Your task to perform on an android device: turn on airplane mode Image 0: 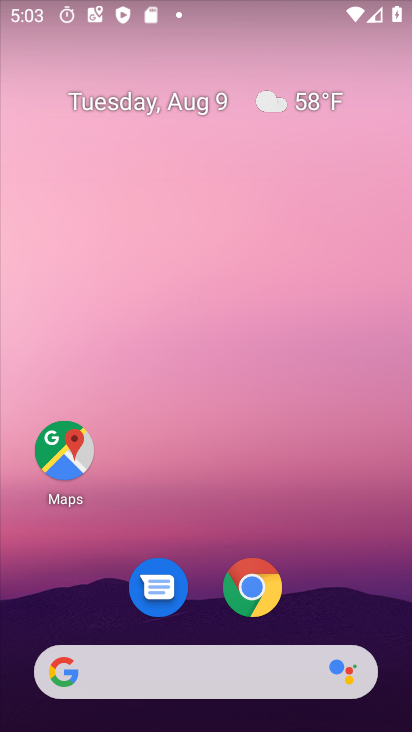
Step 0: drag from (212, 649) to (225, 166)
Your task to perform on an android device: turn on airplane mode Image 1: 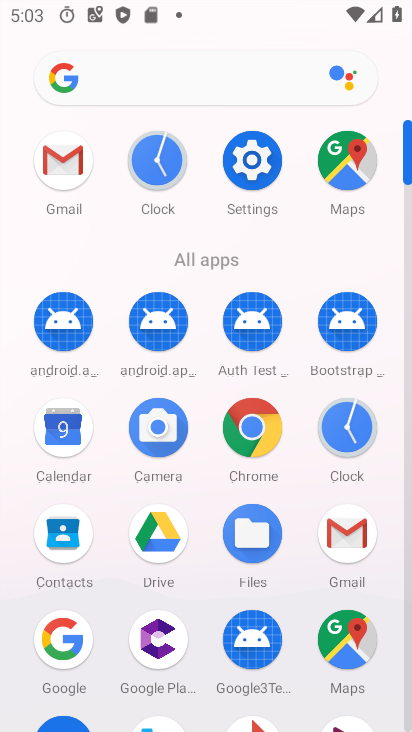
Step 1: click (253, 158)
Your task to perform on an android device: turn on airplane mode Image 2: 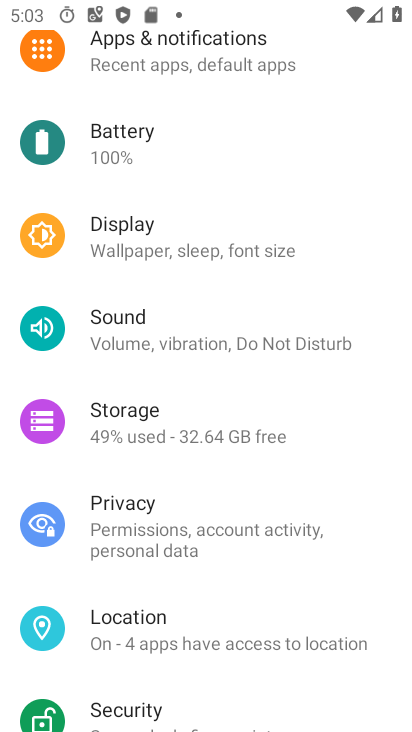
Step 2: drag from (292, 154) to (313, 720)
Your task to perform on an android device: turn on airplane mode Image 3: 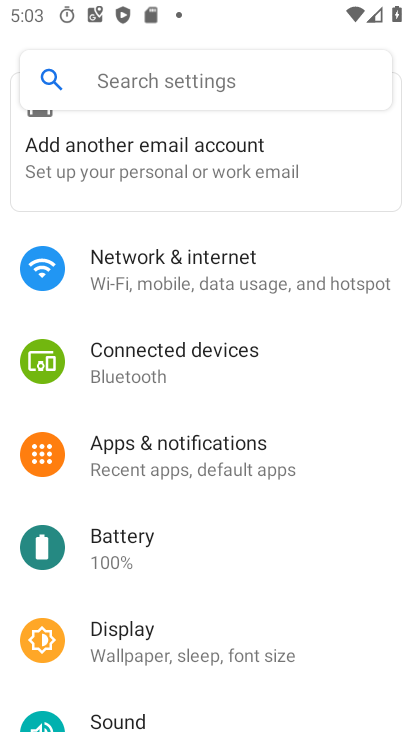
Step 3: click (240, 249)
Your task to perform on an android device: turn on airplane mode Image 4: 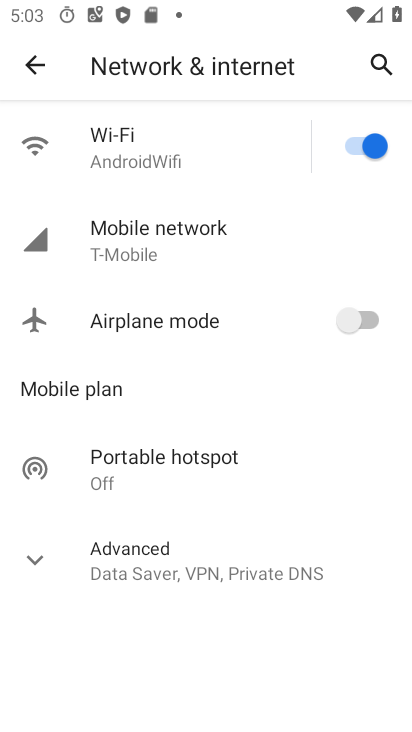
Step 4: click (369, 319)
Your task to perform on an android device: turn on airplane mode Image 5: 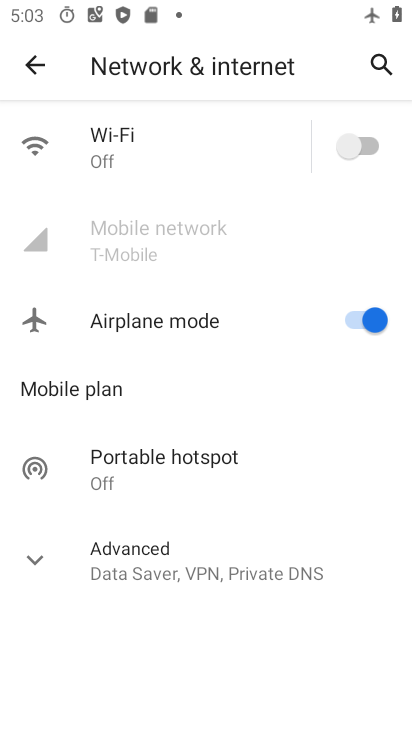
Step 5: task complete